Your task to perform on an android device: Add logitech g910 to the cart on amazon, then select checkout. Image 0: 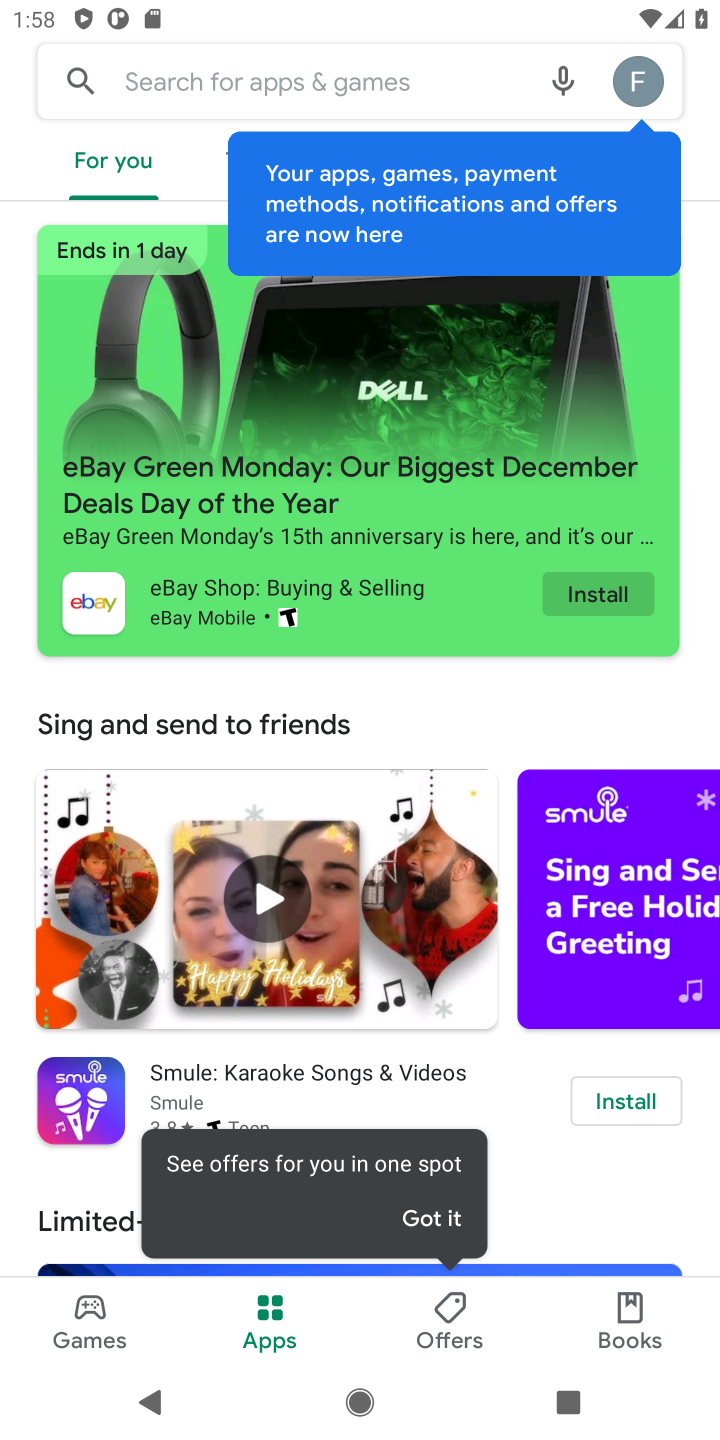
Step 0: press home button
Your task to perform on an android device: Add logitech g910 to the cart on amazon, then select checkout. Image 1: 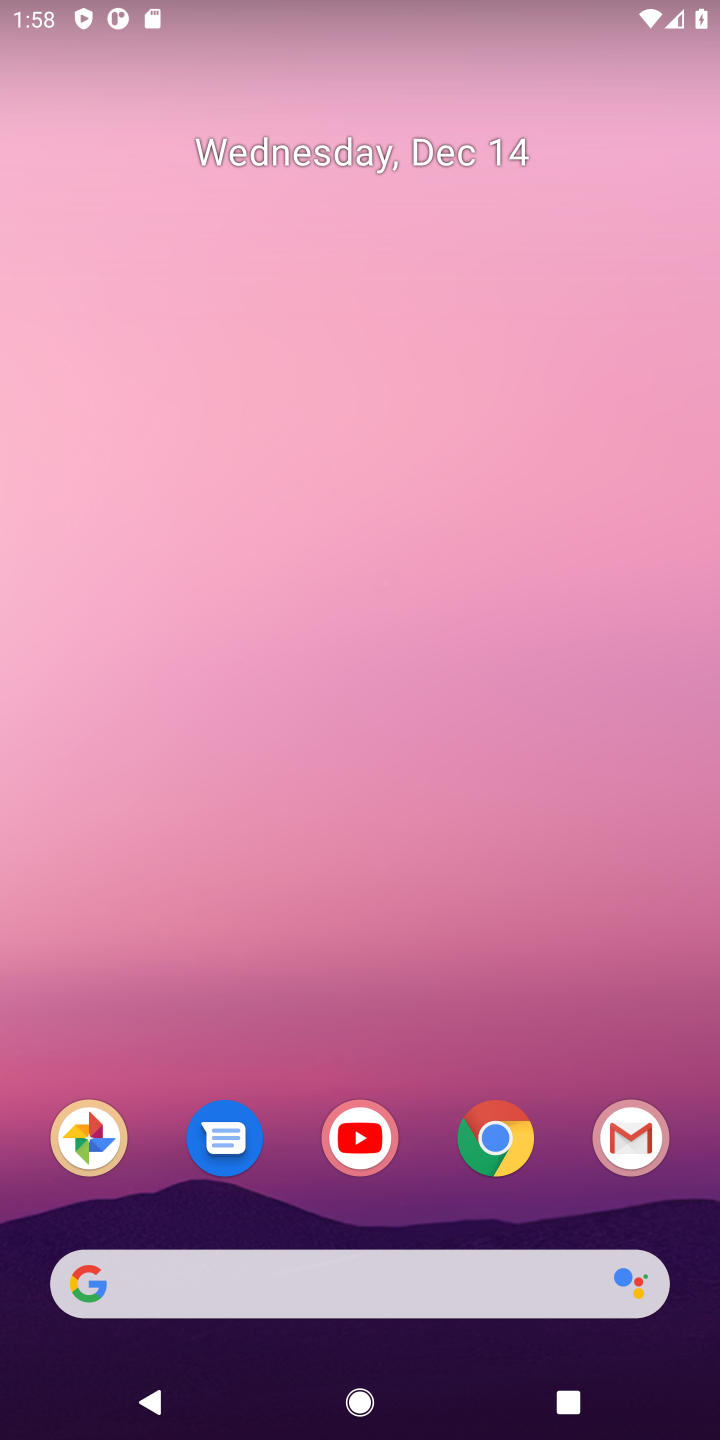
Step 1: click (517, 1136)
Your task to perform on an android device: Add logitech g910 to the cart on amazon, then select checkout. Image 2: 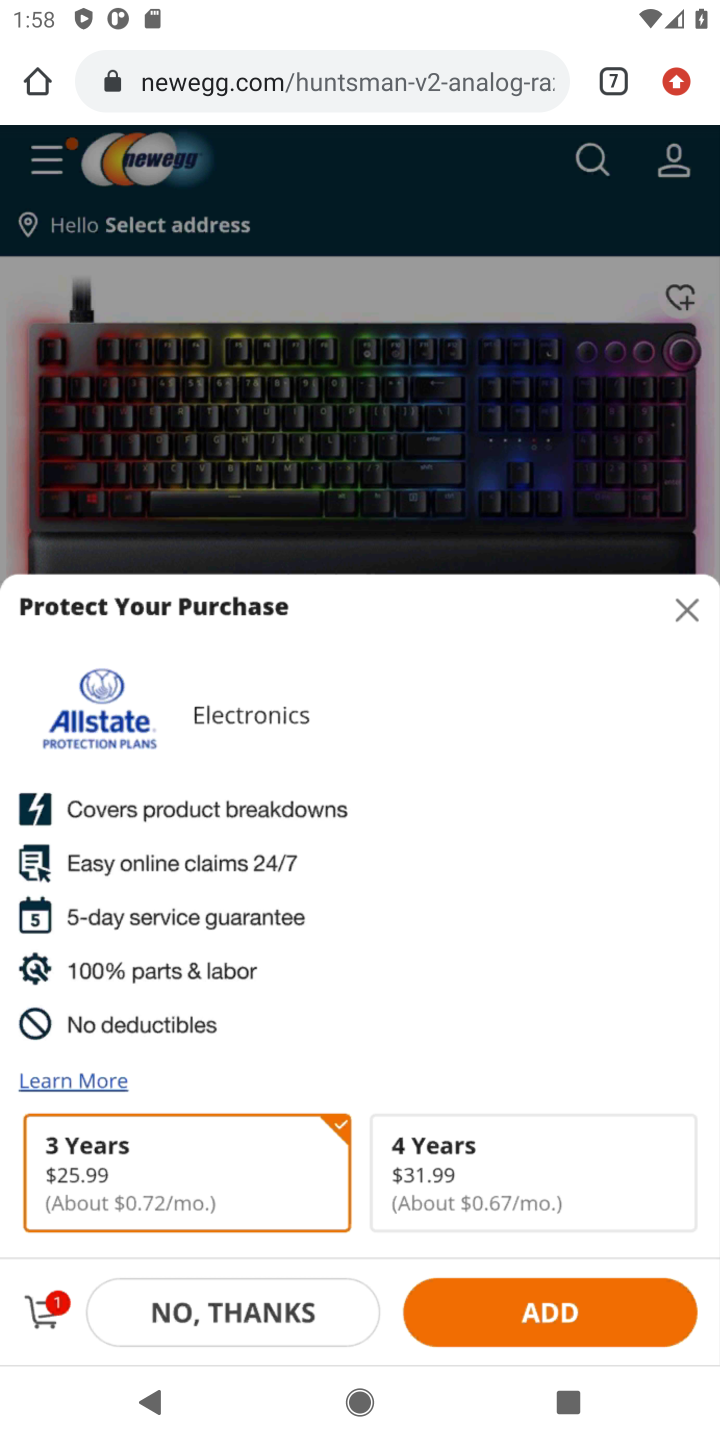
Step 2: click (624, 84)
Your task to perform on an android device: Add logitech g910 to the cart on amazon, then select checkout. Image 3: 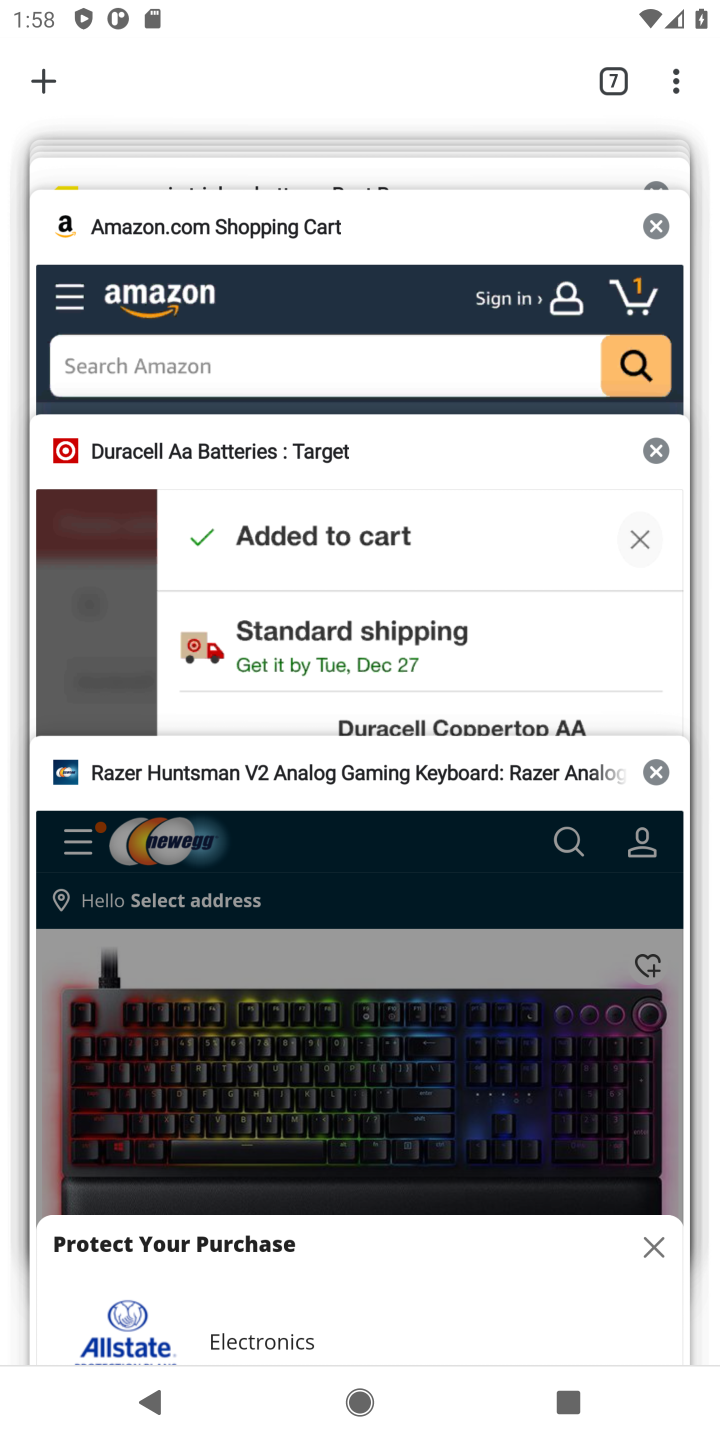
Step 3: click (500, 267)
Your task to perform on an android device: Add logitech g910 to the cart on amazon, then select checkout. Image 4: 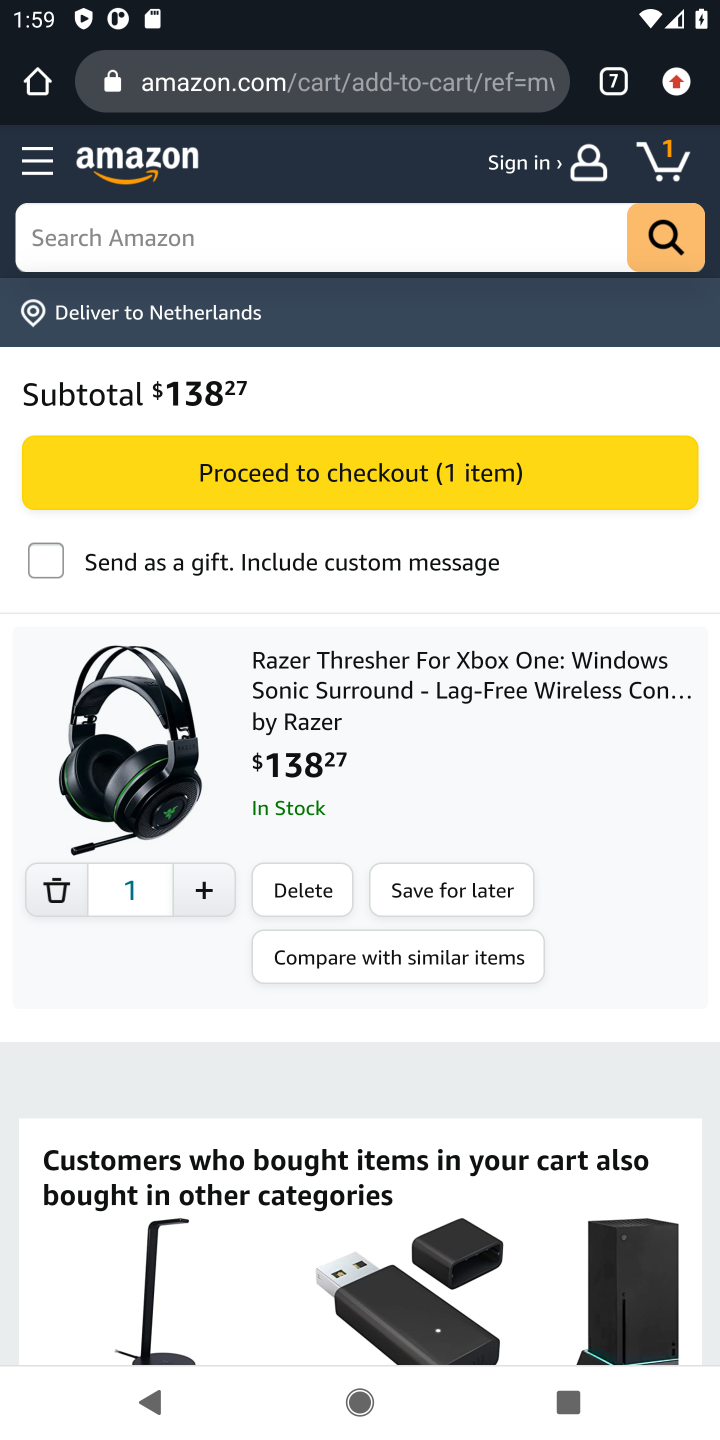
Step 4: click (572, 346)
Your task to perform on an android device: Add logitech g910 to the cart on amazon, then select checkout. Image 5: 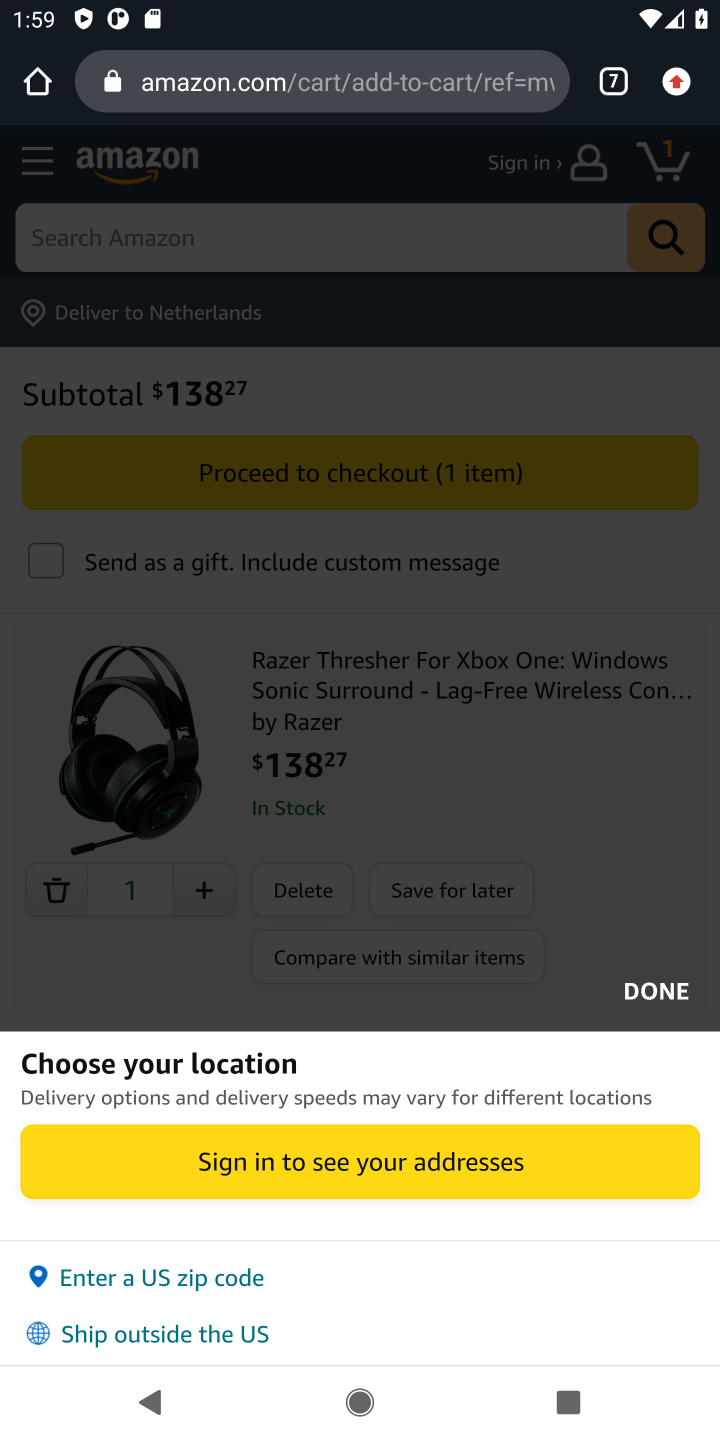
Step 5: click (658, 997)
Your task to perform on an android device: Add logitech g910 to the cart on amazon, then select checkout. Image 6: 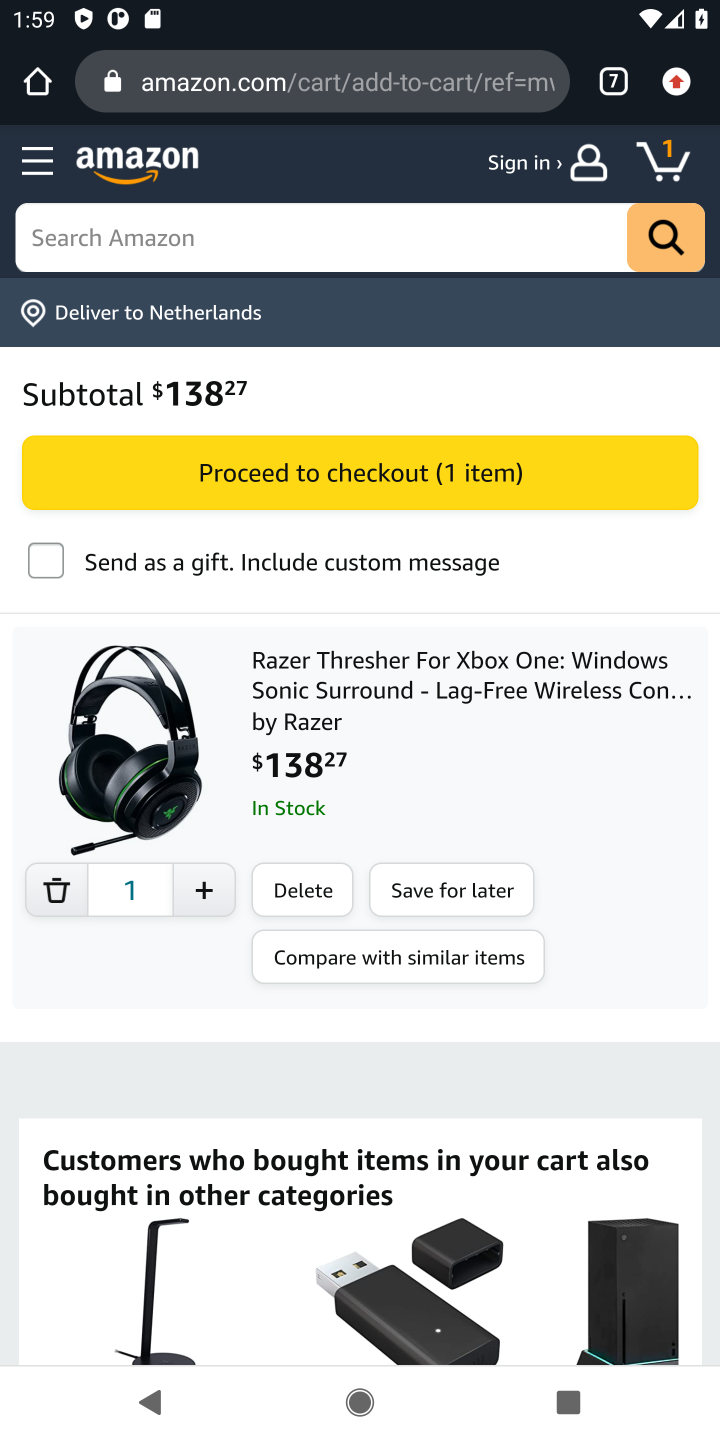
Step 6: click (214, 247)
Your task to perform on an android device: Add logitech g910 to the cart on amazon, then select checkout. Image 7: 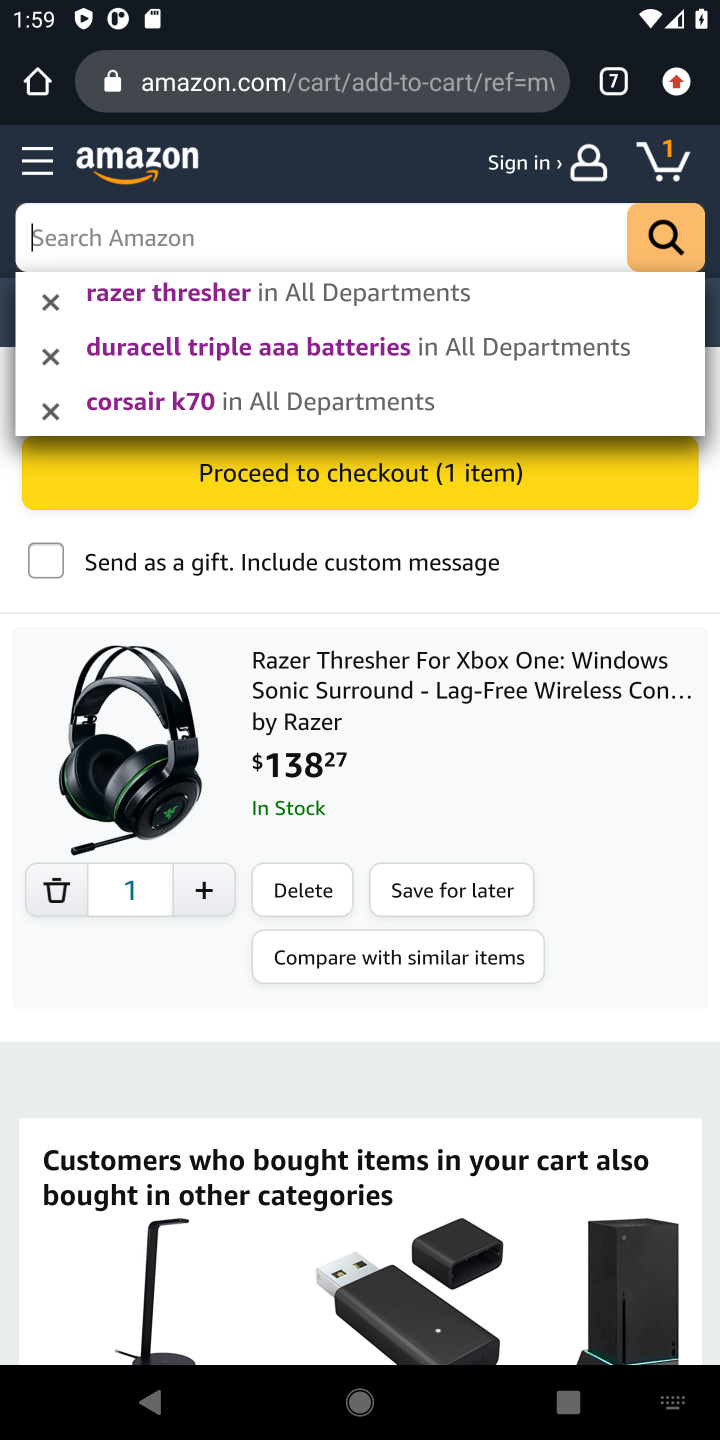
Step 7: type "logitech g910"
Your task to perform on an android device: Add logitech g910 to the cart on amazon, then select checkout. Image 8: 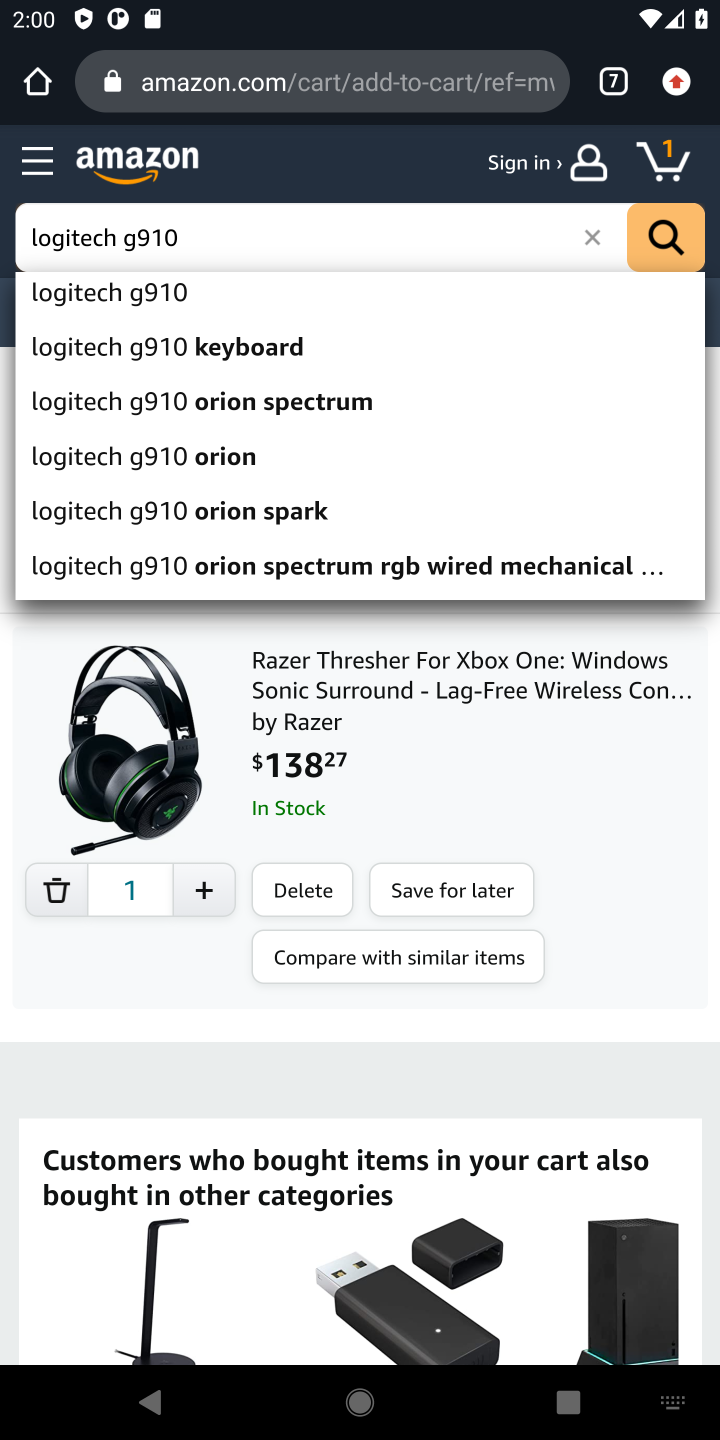
Step 8: click (142, 298)
Your task to perform on an android device: Add logitech g910 to the cart on amazon, then select checkout. Image 9: 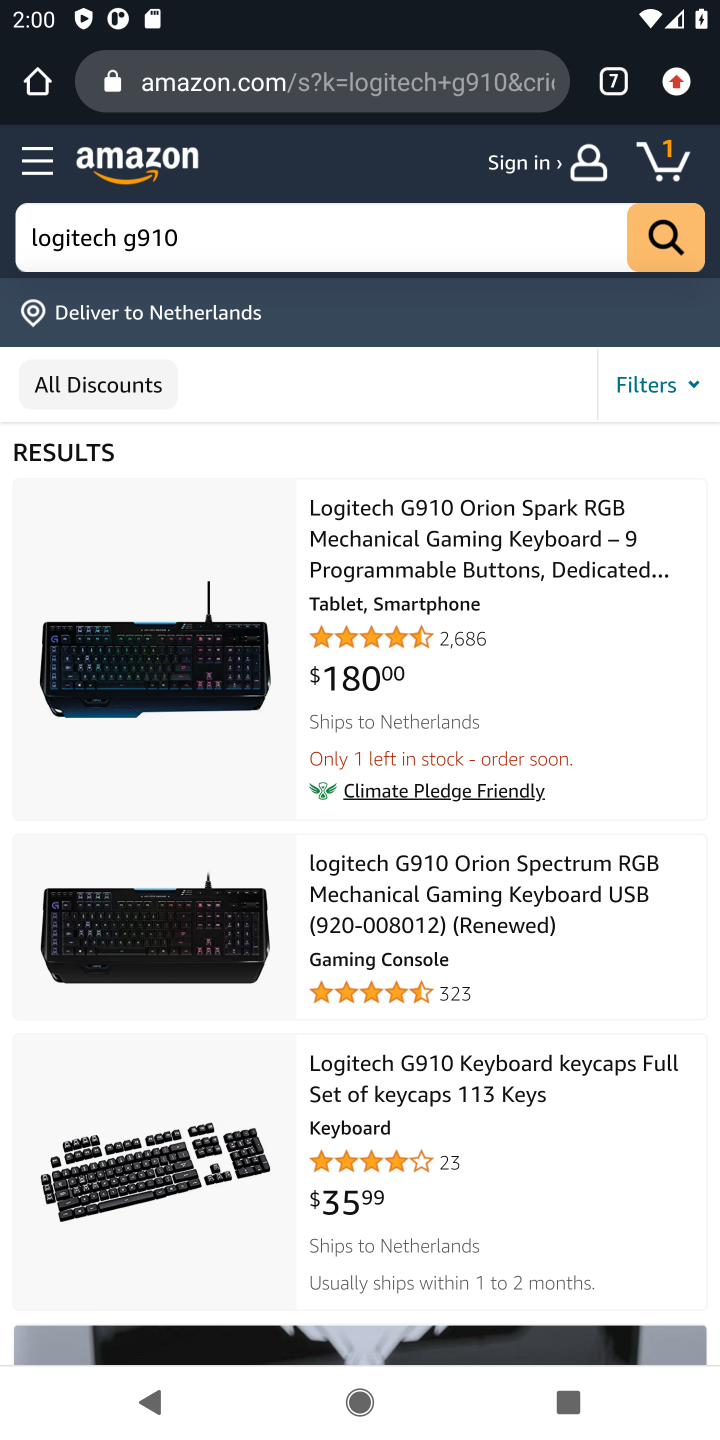
Step 9: click (475, 537)
Your task to perform on an android device: Add logitech g910 to the cart on amazon, then select checkout. Image 10: 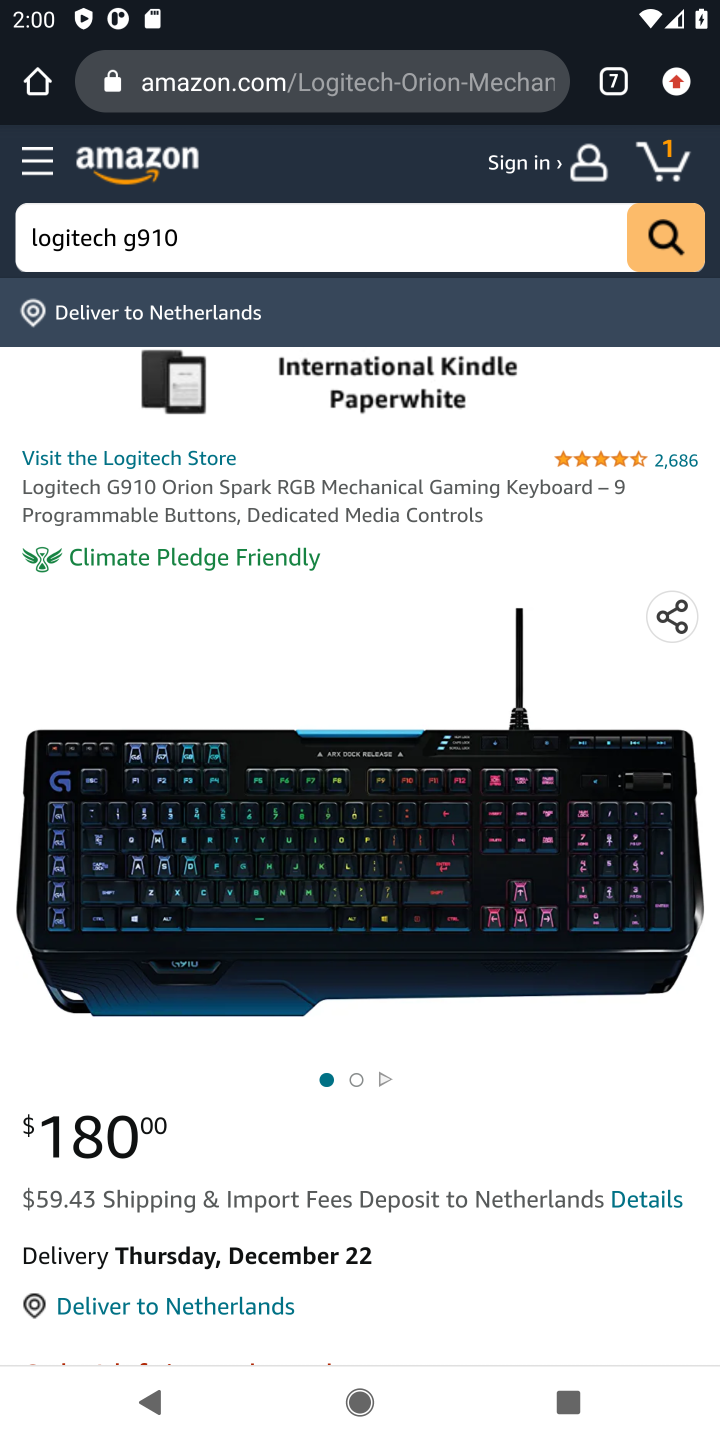
Step 10: drag from (533, 1263) to (593, 394)
Your task to perform on an android device: Add logitech g910 to the cart on amazon, then select checkout. Image 11: 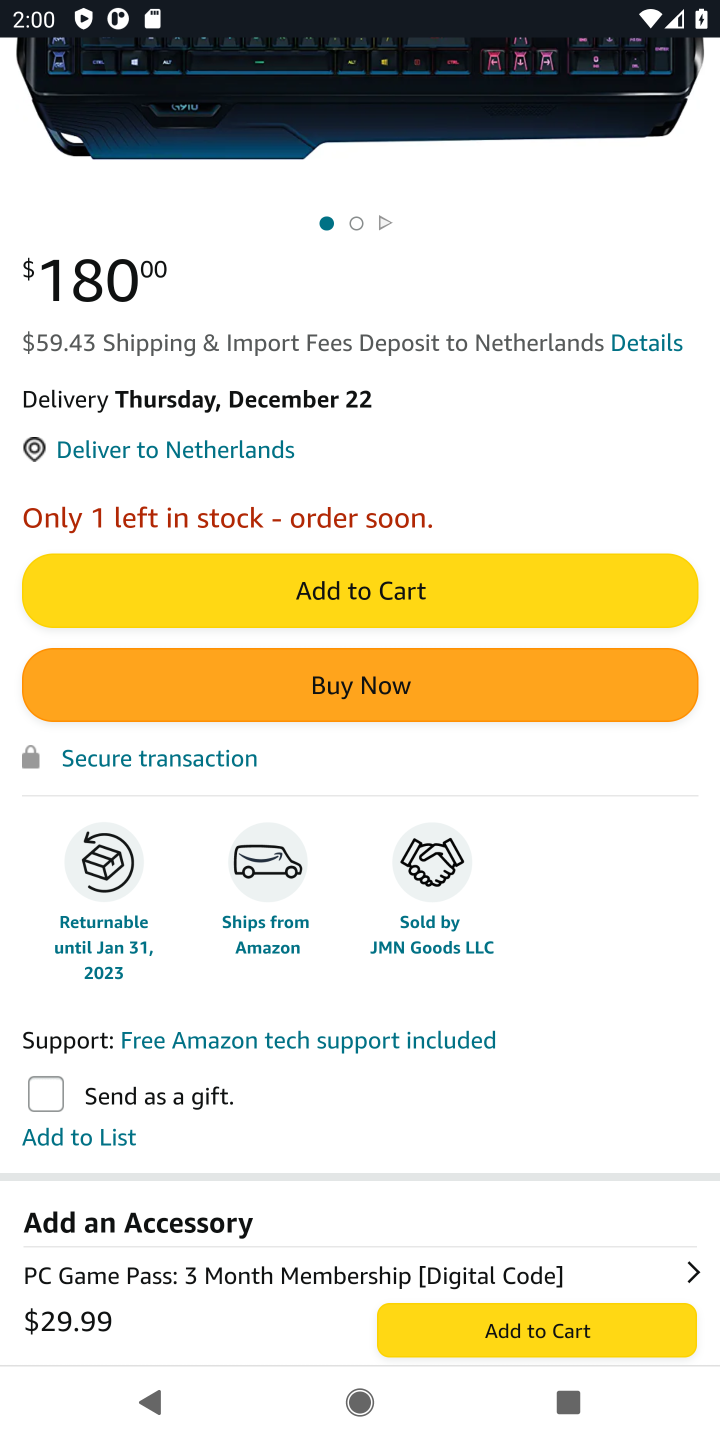
Step 11: click (347, 591)
Your task to perform on an android device: Add logitech g910 to the cart on amazon, then select checkout. Image 12: 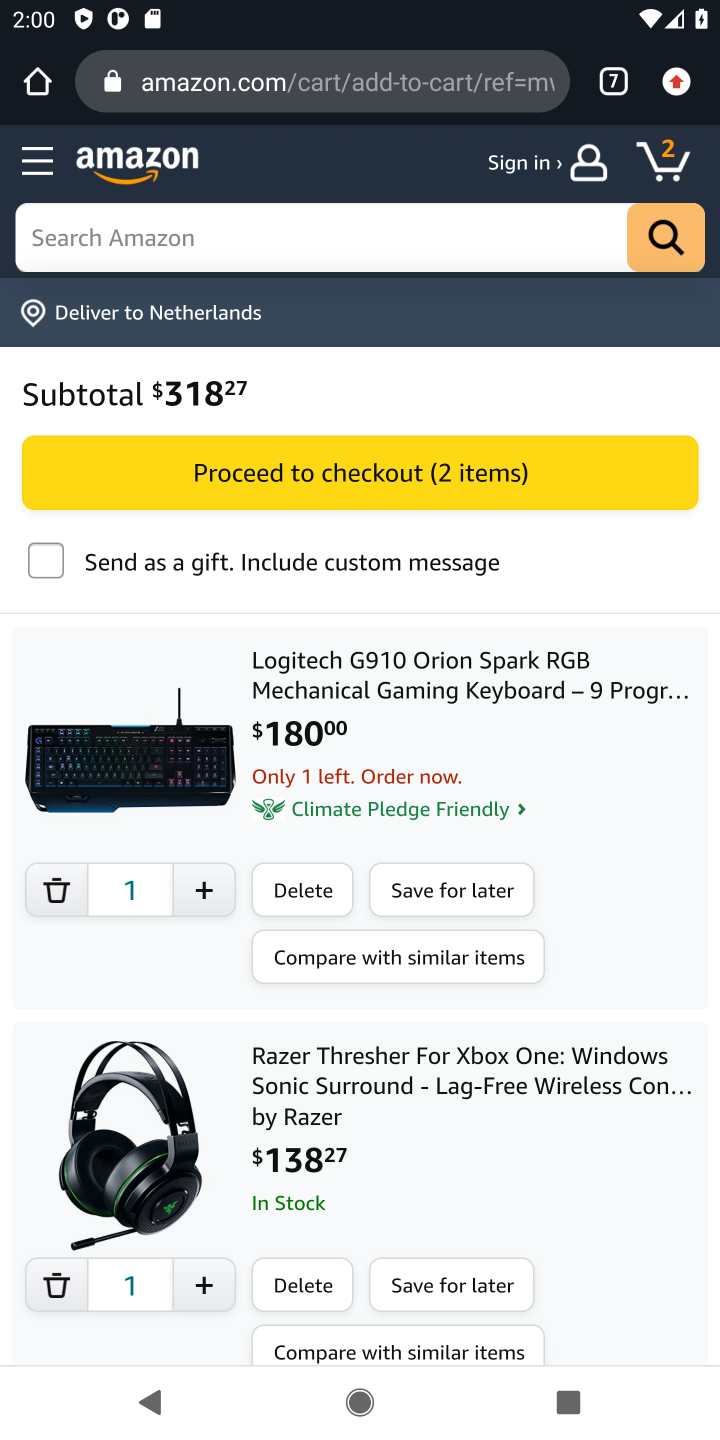
Step 12: task complete